Your task to perform on an android device: Open Google Maps Image 0: 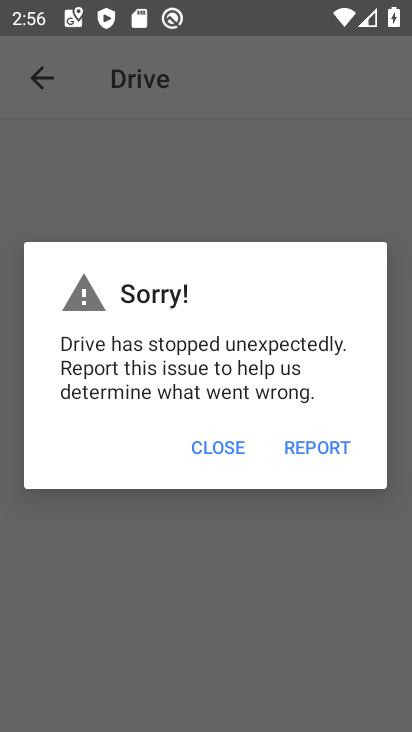
Step 0: press home button
Your task to perform on an android device: Open Google Maps Image 1: 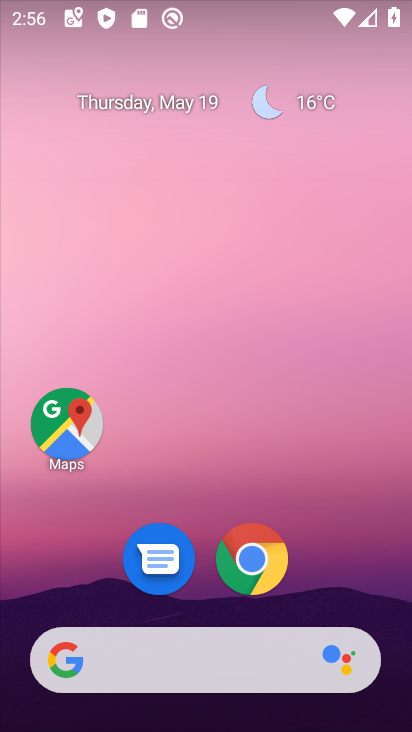
Step 1: click (74, 439)
Your task to perform on an android device: Open Google Maps Image 2: 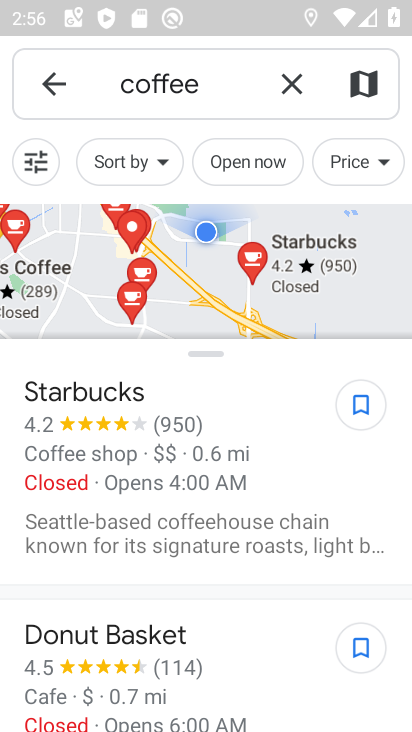
Step 2: task complete